Your task to perform on an android device: Open privacy settings Image 0: 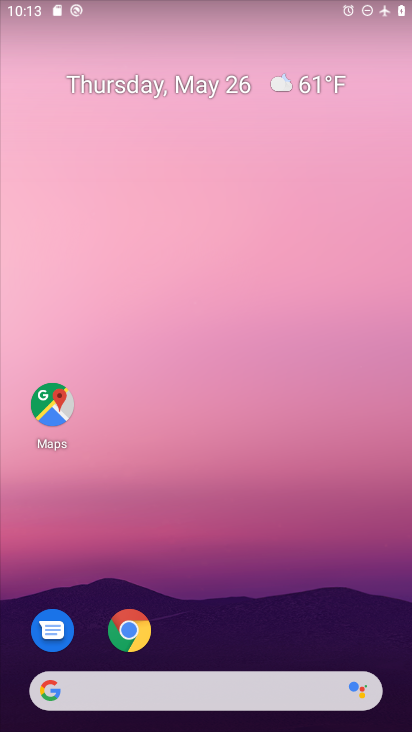
Step 0: drag from (207, 656) to (208, 79)
Your task to perform on an android device: Open privacy settings Image 1: 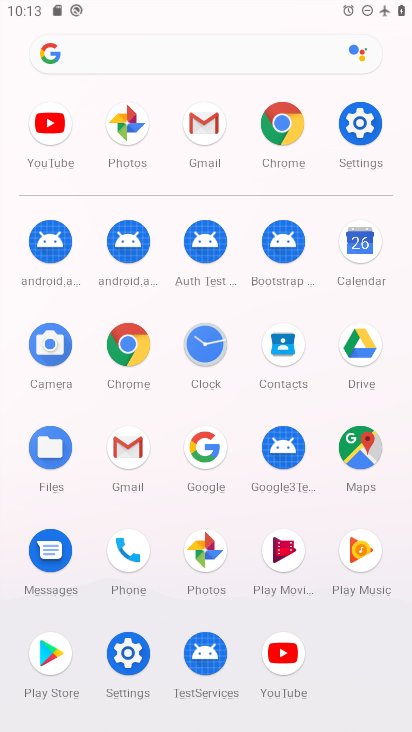
Step 1: click (353, 134)
Your task to perform on an android device: Open privacy settings Image 2: 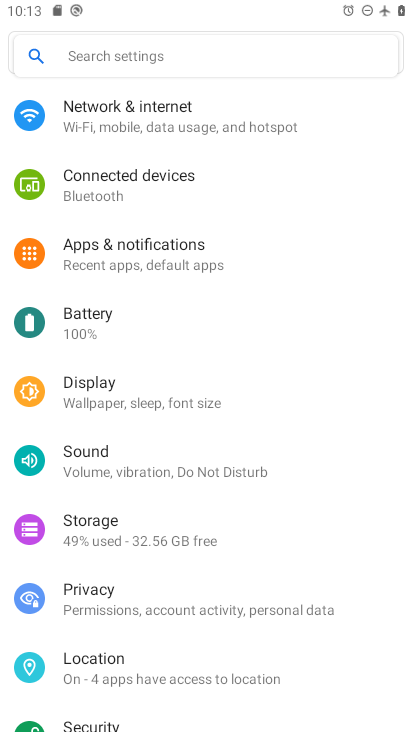
Step 2: click (113, 606)
Your task to perform on an android device: Open privacy settings Image 3: 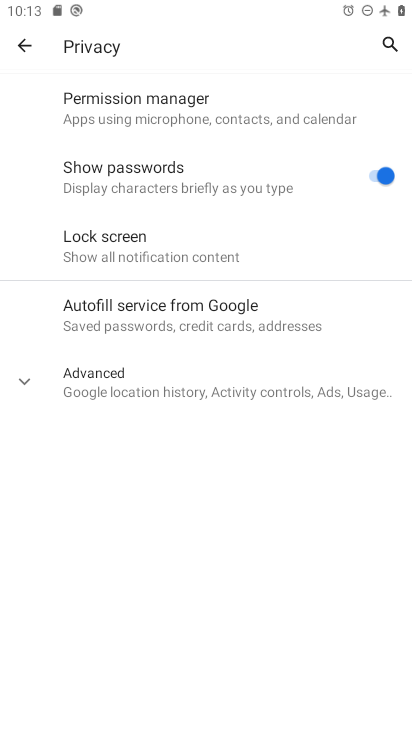
Step 3: click (146, 367)
Your task to perform on an android device: Open privacy settings Image 4: 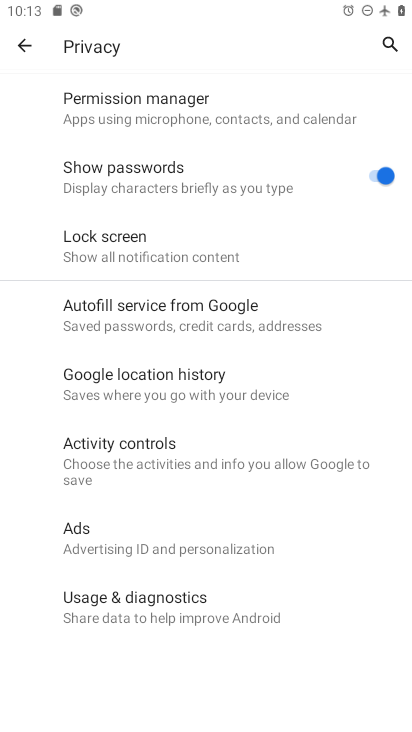
Step 4: task complete